Your task to perform on an android device: show emergency info Image 0: 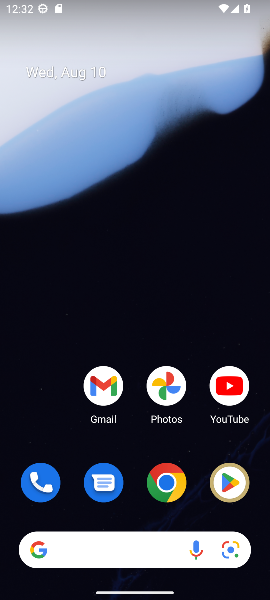
Step 0: drag from (50, 415) to (56, 115)
Your task to perform on an android device: show emergency info Image 1: 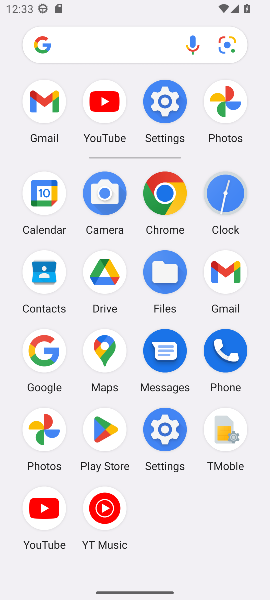
Step 1: click (171, 429)
Your task to perform on an android device: show emergency info Image 2: 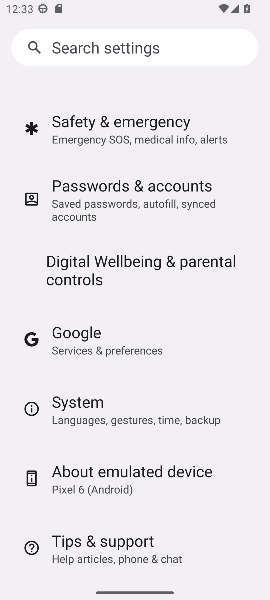
Step 2: task complete